Your task to perform on an android device: see tabs open on other devices in the chrome app Image 0: 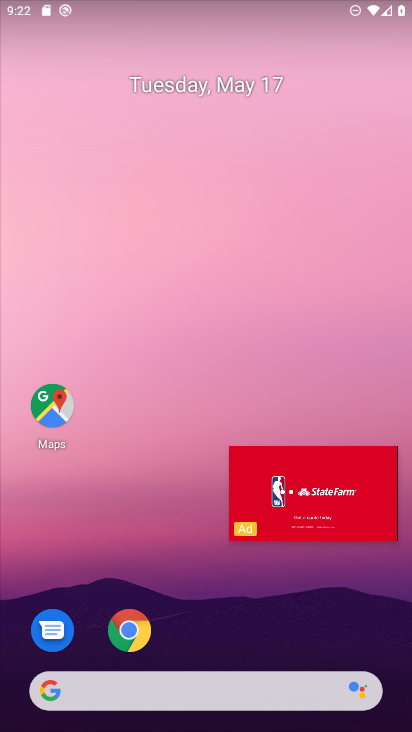
Step 0: drag from (346, 614) to (342, 73)
Your task to perform on an android device: see tabs open on other devices in the chrome app Image 1: 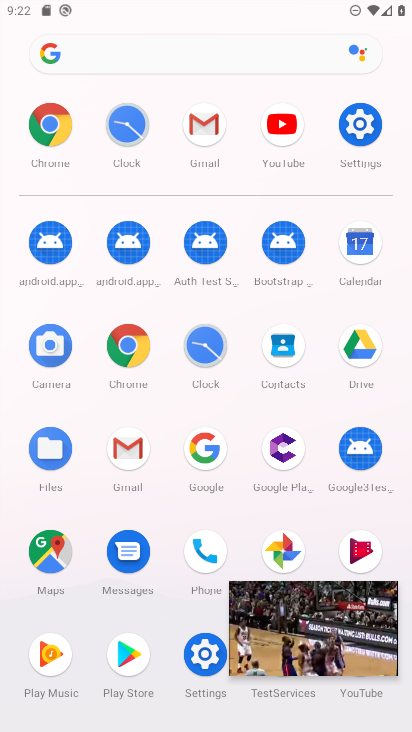
Step 1: click (133, 346)
Your task to perform on an android device: see tabs open on other devices in the chrome app Image 2: 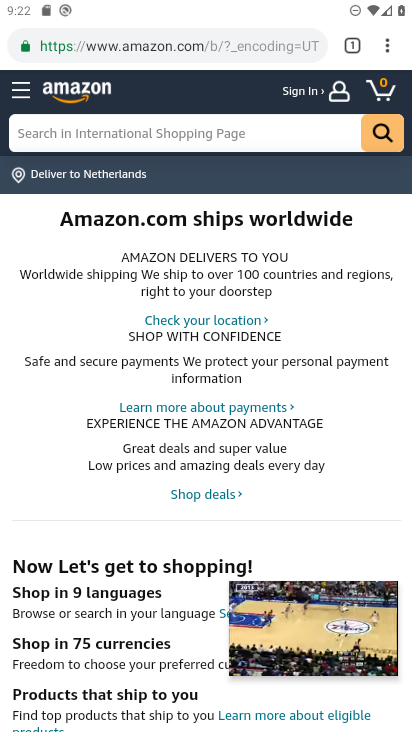
Step 2: click (390, 52)
Your task to perform on an android device: see tabs open on other devices in the chrome app Image 3: 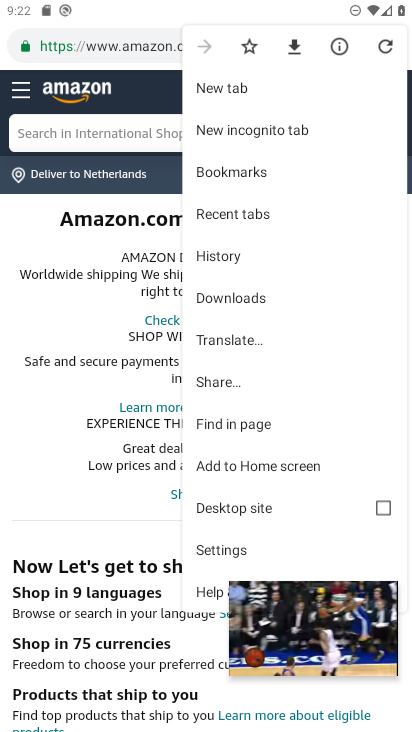
Step 3: click (246, 207)
Your task to perform on an android device: see tabs open on other devices in the chrome app Image 4: 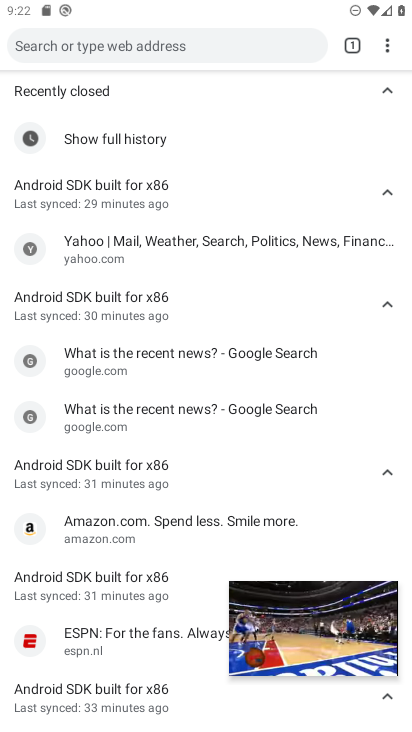
Step 4: drag from (246, 467) to (249, 289)
Your task to perform on an android device: see tabs open on other devices in the chrome app Image 5: 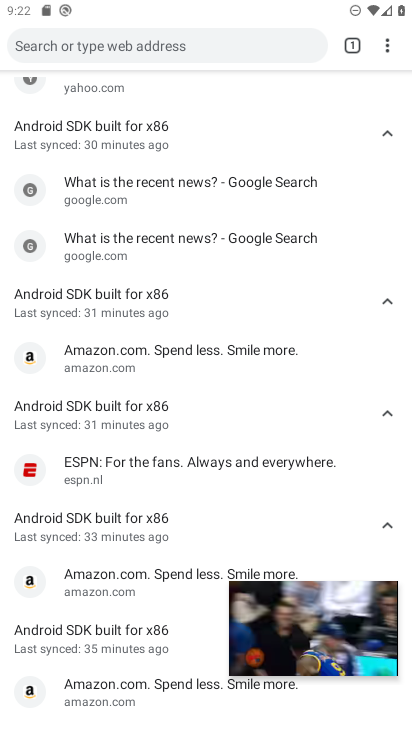
Step 5: drag from (252, 125) to (252, 336)
Your task to perform on an android device: see tabs open on other devices in the chrome app Image 6: 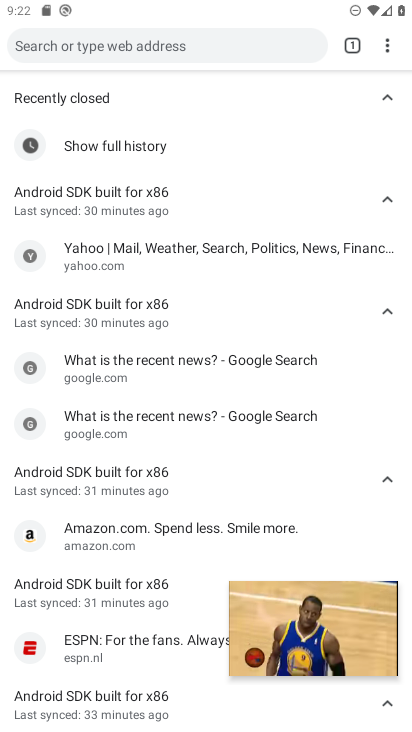
Step 6: click (350, 44)
Your task to perform on an android device: see tabs open on other devices in the chrome app Image 7: 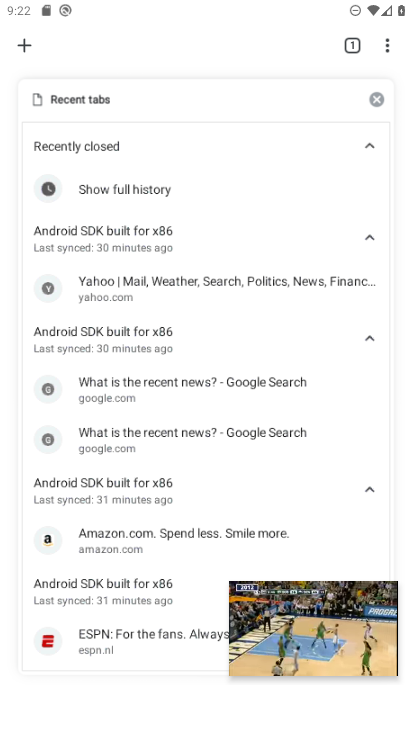
Step 7: task complete